Your task to perform on an android device: change your default location settings in chrome Image 0: 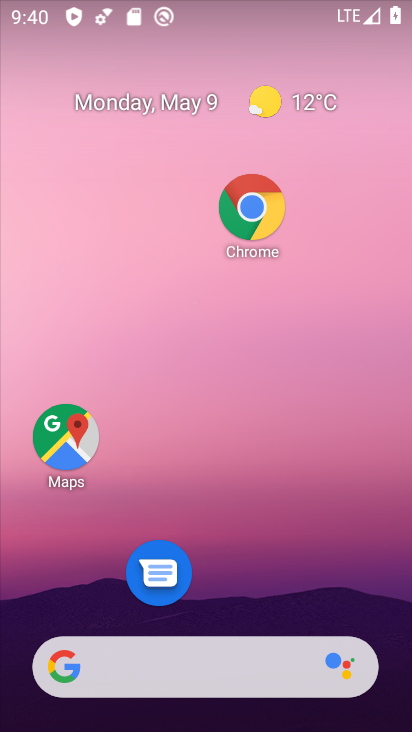
Step 0: drag from (273, 578) to (332, 153)
Your task to perform on an android device: change your default location settings in chrome Image 1: 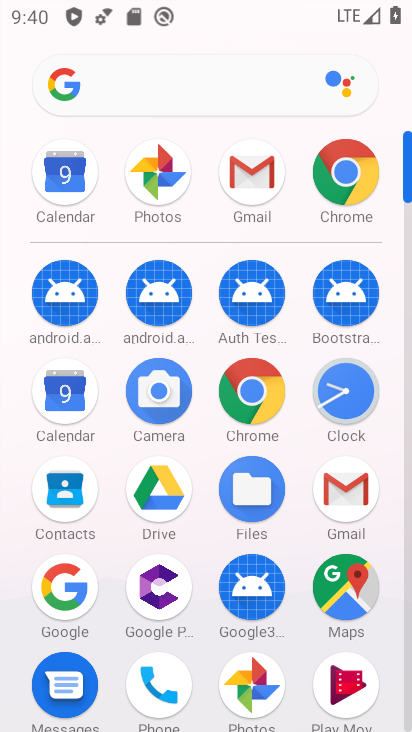
Step 1: click (245, 432)
Your task to perform on an android device: change your default location settings in chrome Image 2: 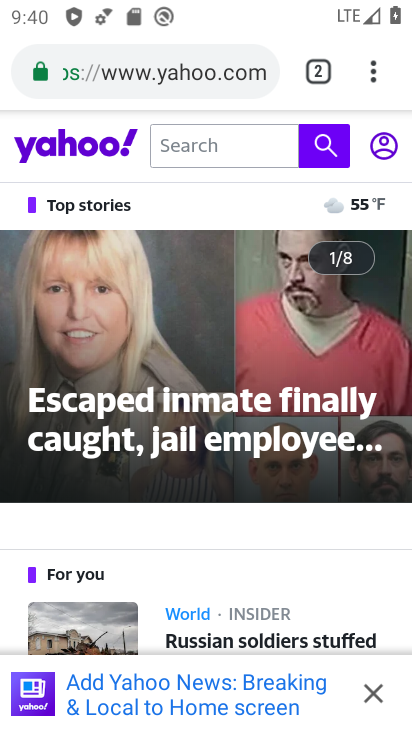
Step 2: click (371, 77)
Your task to perform on an android device: change your default location settings in chrome Image 3: 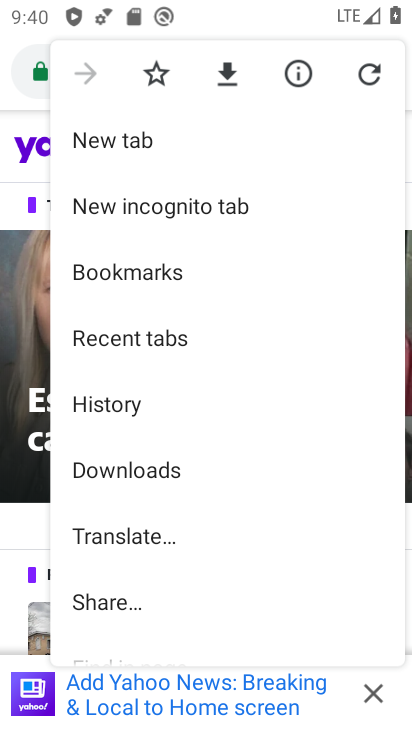
Step 3: drag from (243, 522) to (264, 277)
Your task to perform on an android device: change your default location settings in chrome Image 4: 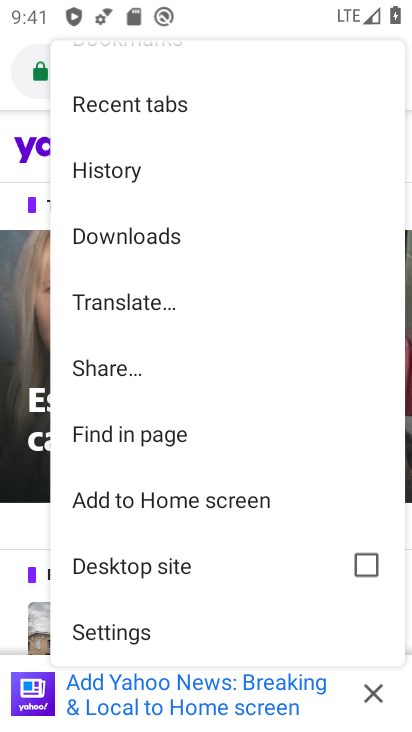
Step 4: drag from (211, 586) to (217, 303)
Your task to perform on an android device: change your default location settings in chrome Image 5: 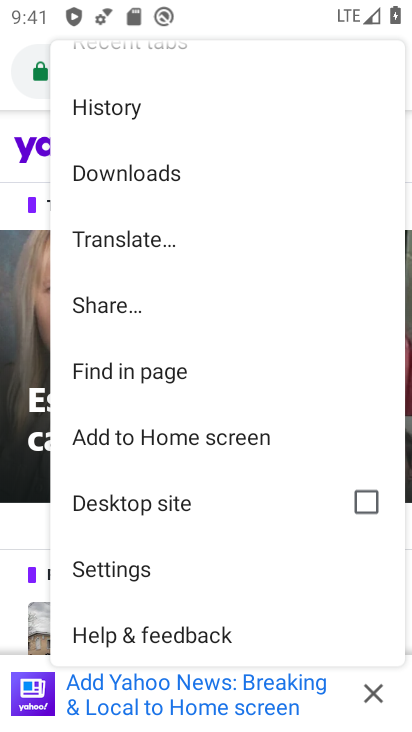
Step 5: click (117, 571)
Your task to perform on an android device: change your default location settings in chrome Image 6: 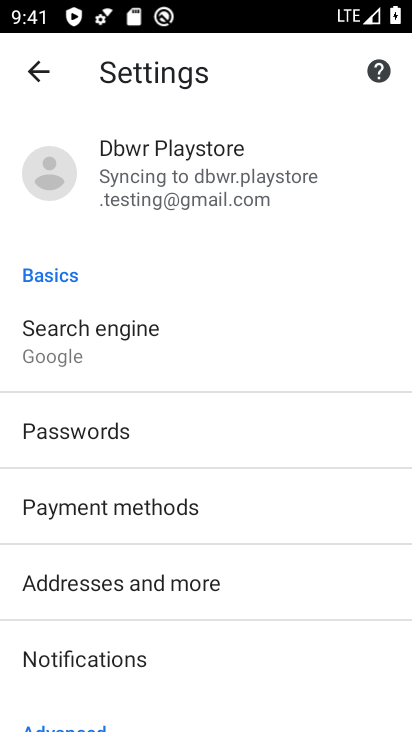
Step 6: drag from (168, 517) to (206, 269)
Your task to perform on an android device: change your default location settings in chrome Image 7: 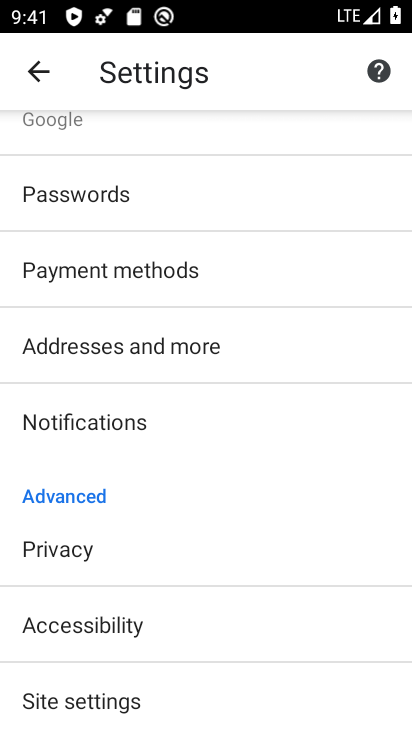
Step 7: drag from (187, 623) to (225, 369)
Your task to perform on an android device: change your default location settings in chrome Image 8: 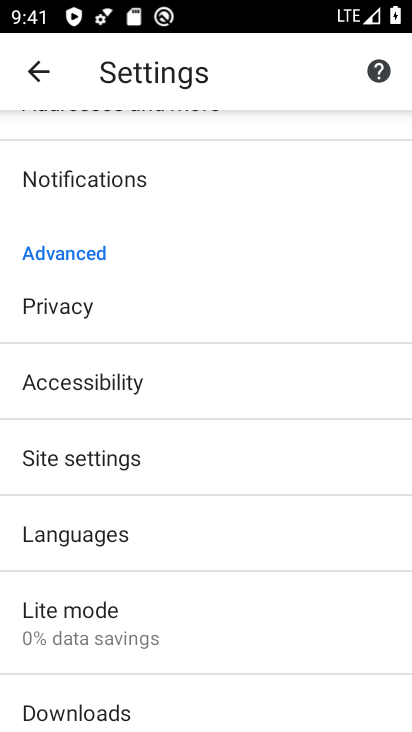
Step 8: drag from (77, 552) to (133, 430)
Your task to perform on an android device: change your default location settings in chrome Image 9: 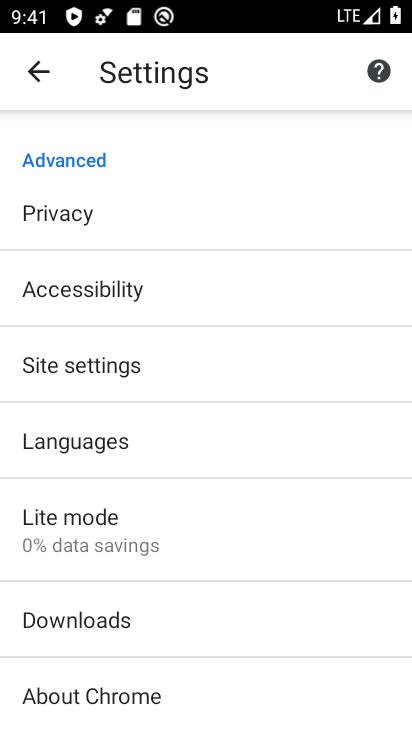
Step 9: click (95, 362)
Your task to perform on an android device: change your default location settings in chrome Image 10: 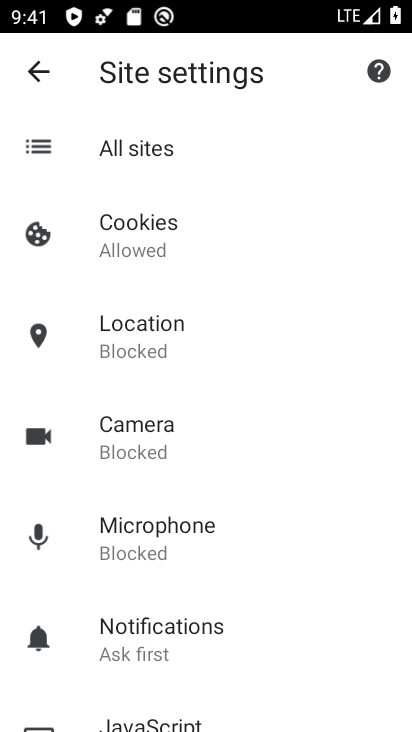
Step 10: click (150, 328)
Your task to perform on an android device: change your default location settings in chrome Image 11: 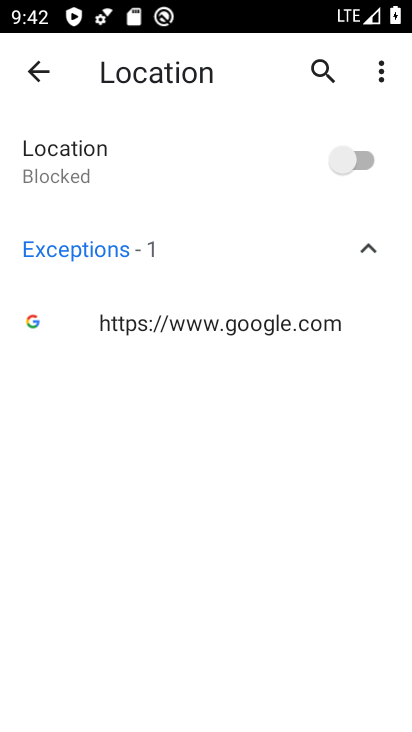
Step 11: click (347, 160)
Your task to perform on an android device: change your default location settings in chrome Image 12: 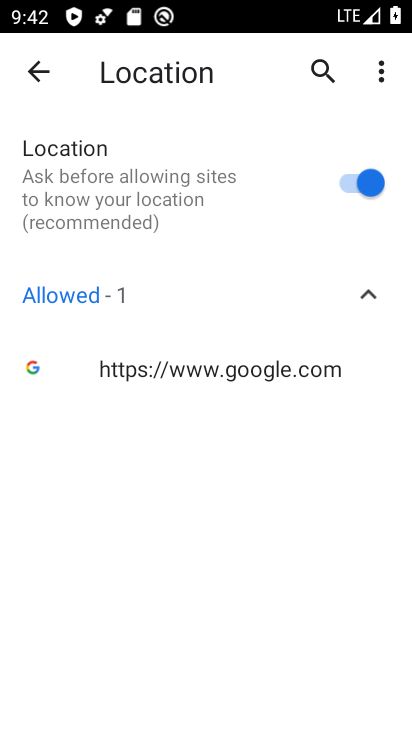
Step 12: task complete